Your task to perform on an android device: toggle improve location accuracy Image 0: 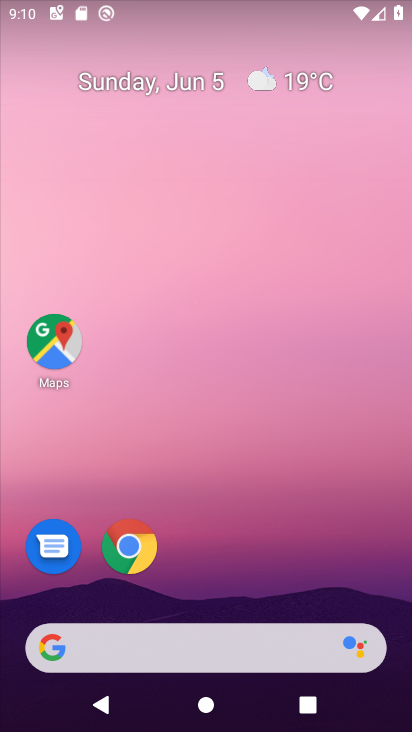
Step 0: drag from (262, 582) to (200, 25)
Your task to perform on an android device: toggle improve location accuracy Image 1: 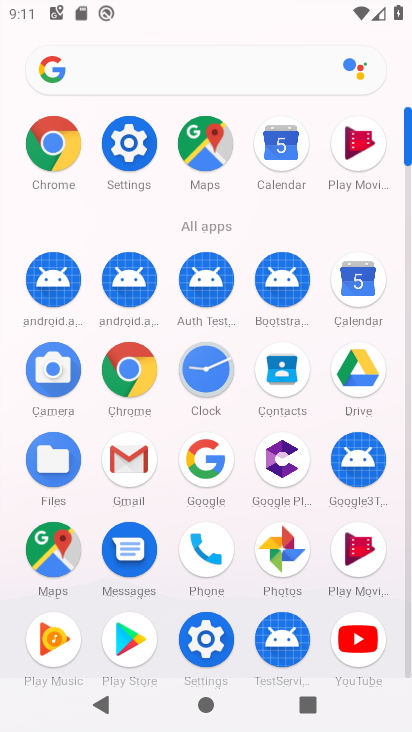
Step 1: click (65, 550)
Your task to perform on an android device: toggle improve location accuracy Image 2: 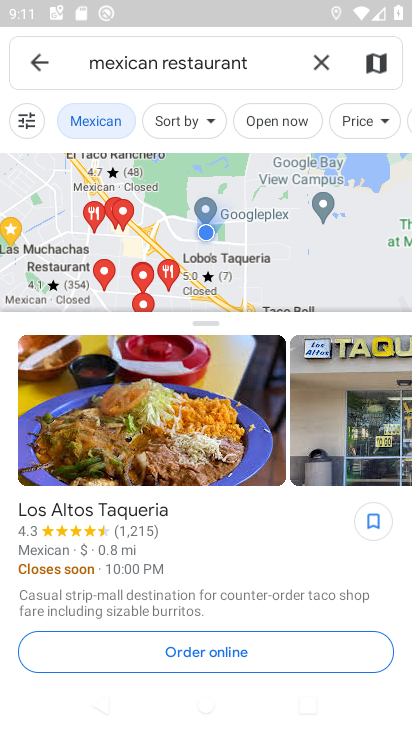
Step 2: press home button
Your task to perform on an android device: toggle improve location accuracy Image 3: 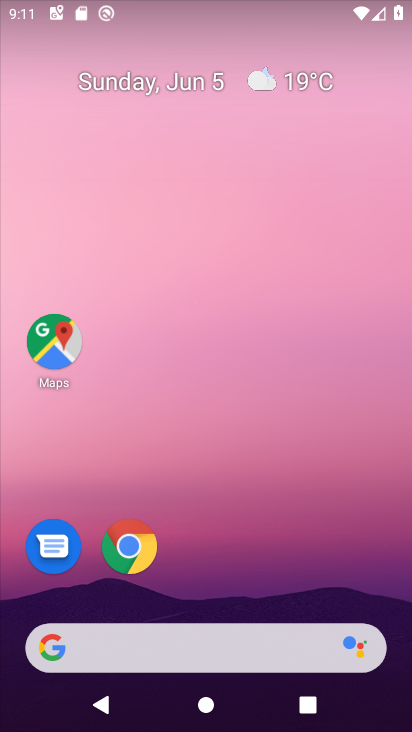
Step 3: drag from (317, 559) to (389, 142)
Your task to perform on an android device: toggle improve location accuracy Image 4: 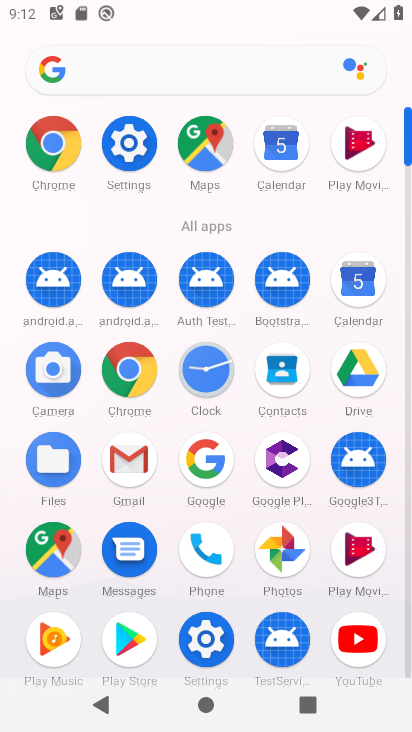
Step 4: click (212, 640)
Your task to perform on an android device: toggle improve location accuracy Image 5: 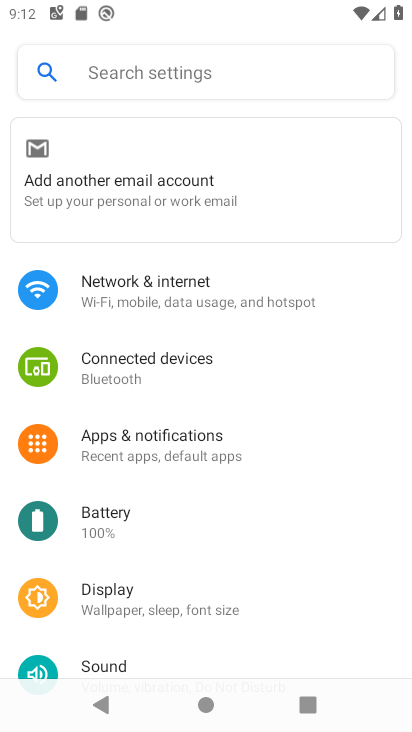
Step 5: click (70, 455)
Your task to perform on an android device: toggle improve location accuracy Image 6: 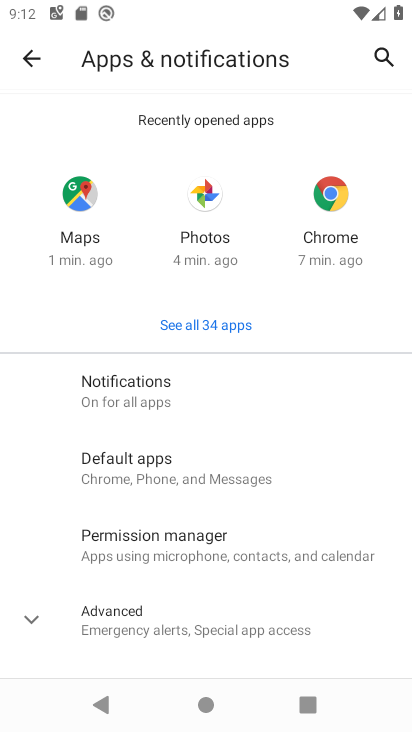
Step 6: click (117, 373)
Your task to perform on an android device: toggle improve location accuracy Image 7: 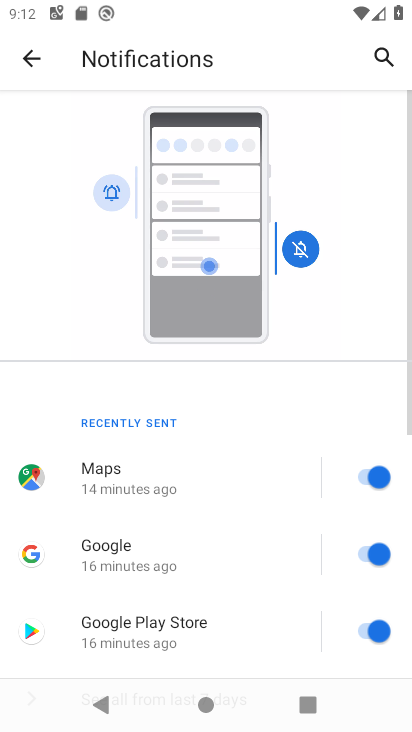
Step 7: drag from (204, 659) to (404, 199)
Your task to perform on an android device: toggle improve location accuracy Image 8: 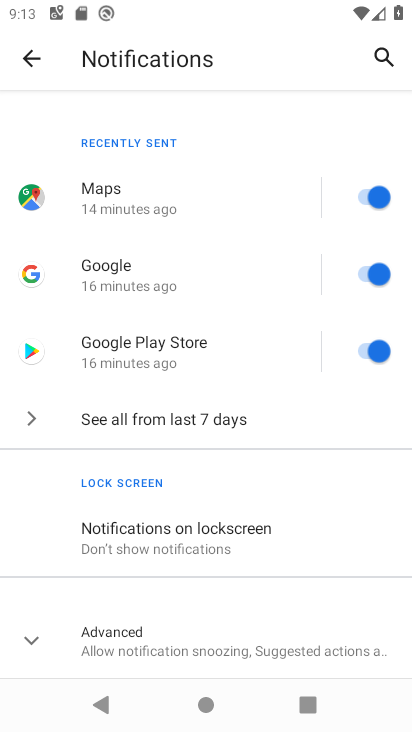
Step 8: click (31, 46)
Your task to perform on an android device: toggle improve location accuracy Image 9: 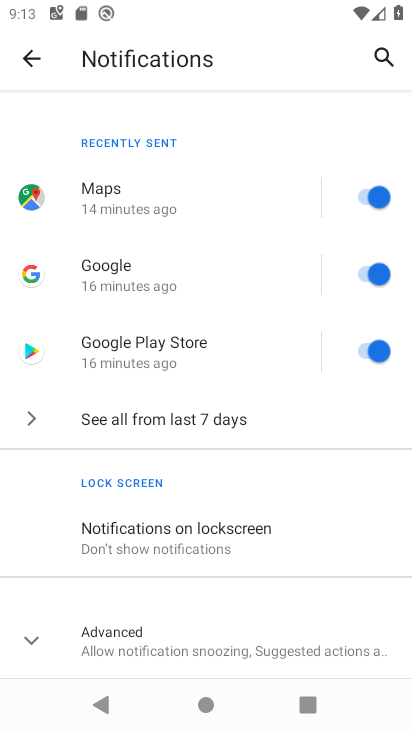
Step 9: click (31, 46)
Your task to perform on an android device: toggle improve location accuracy Image 10: 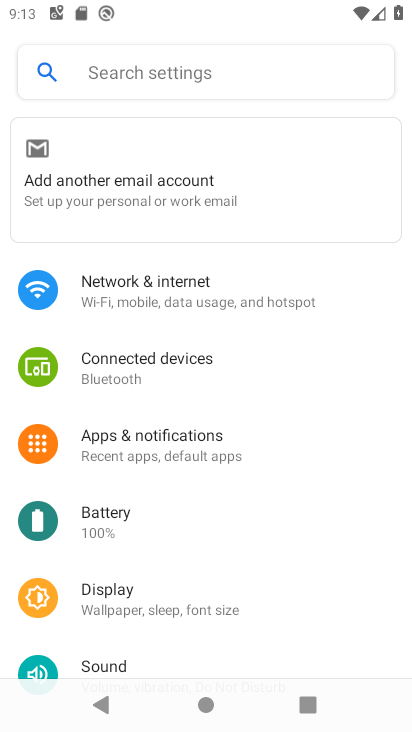
Step 10: drag from (213, 660) to (304, 269)
Your task to perform on an android device: toggle improve location accuracy Image 11: 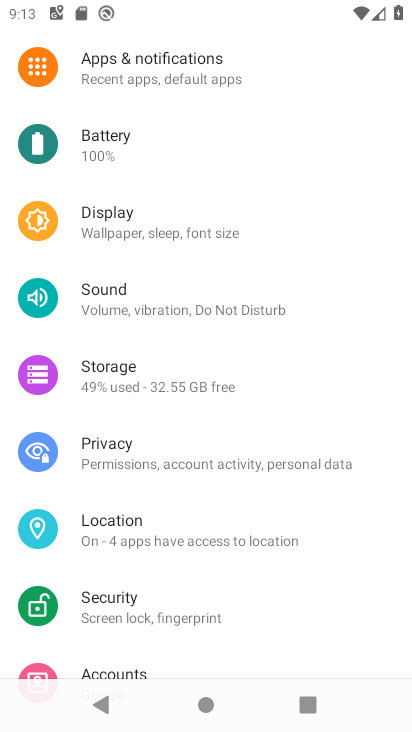
Step 11: click (138, 532)
Your task to perform on an android device: toggle improve location accuracy Image 12: 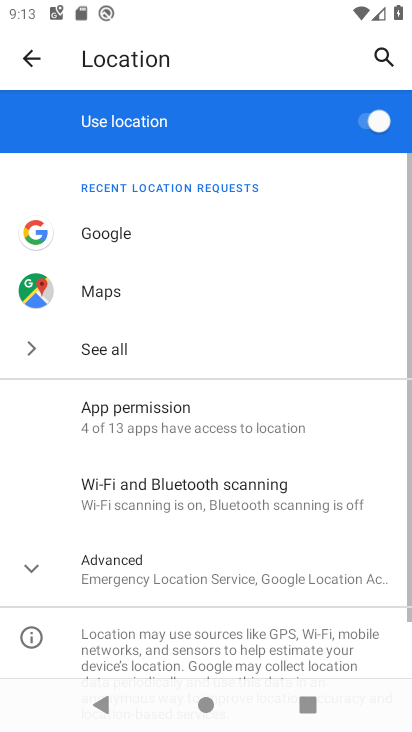
Step 12: click (98, 568)
Your task to perform on an android device: toggle improve location accuracy Image 13: 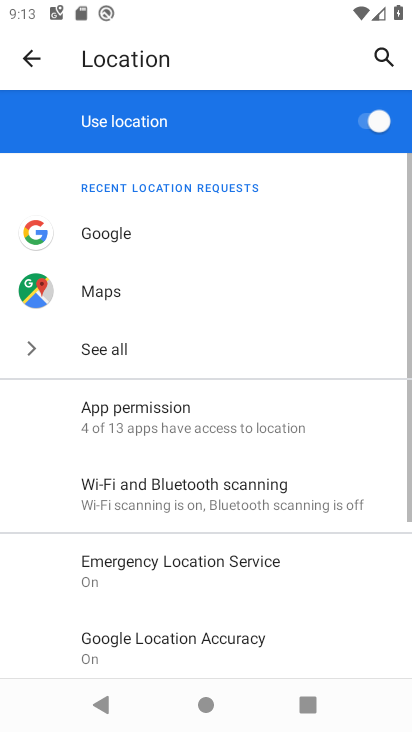
Step 13: drag from (332, 664) to (323, 466)
Your task to perform on an android device: toggle improve location accuracy Image 14: 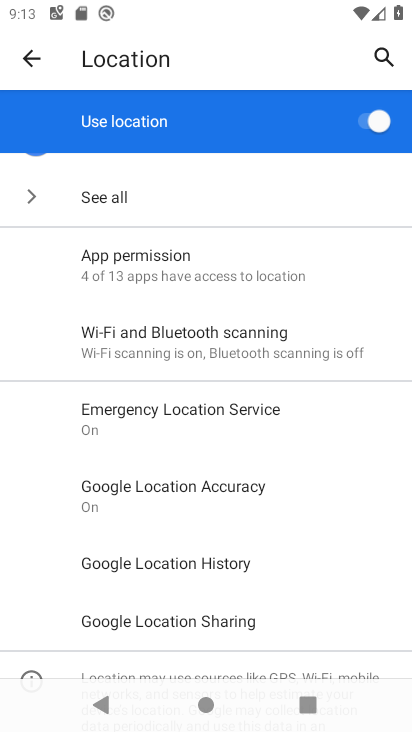
Step 14: click (173, 468)
Your task to perform on an android device: toggle improve location accuracy Image 15: 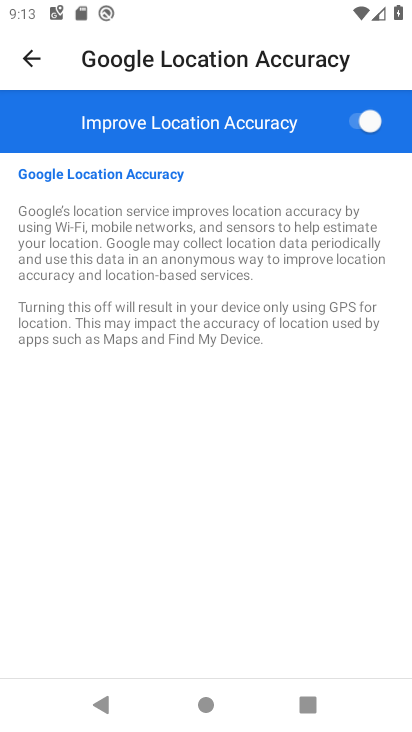
Step 15: click (382, 103)
Your task to perform on an android device: toggle improve location accuracy Image 16: 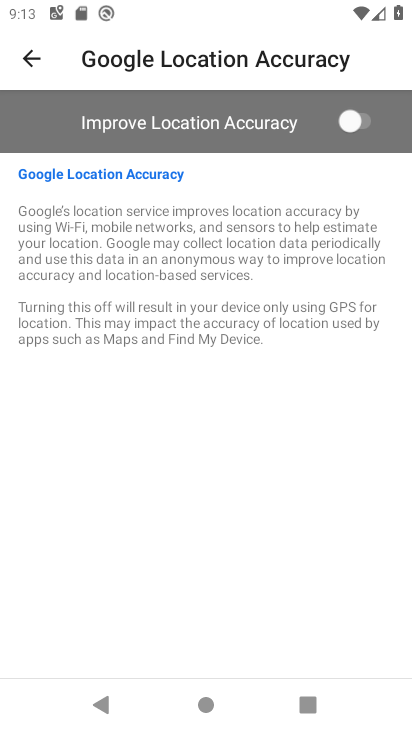
Step 16: task complete